Your task to perform on an android device: turn on the 12-hour format for clock Image 0: 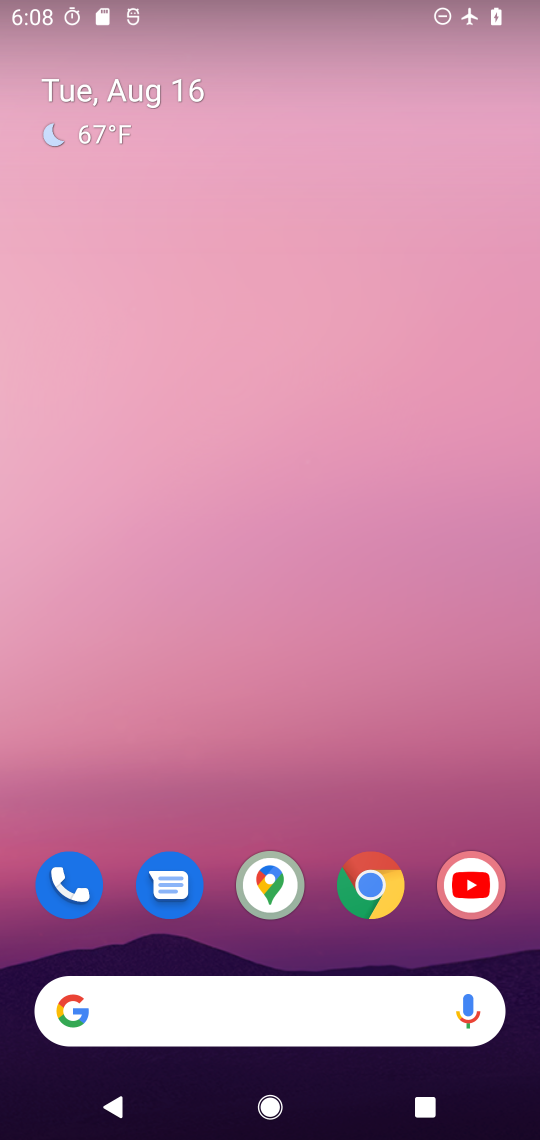
Step 0: drag from (345, 872) to (230, 311)
Your task to perform on an android device: turn on the 12-hour format for clock Image 1: 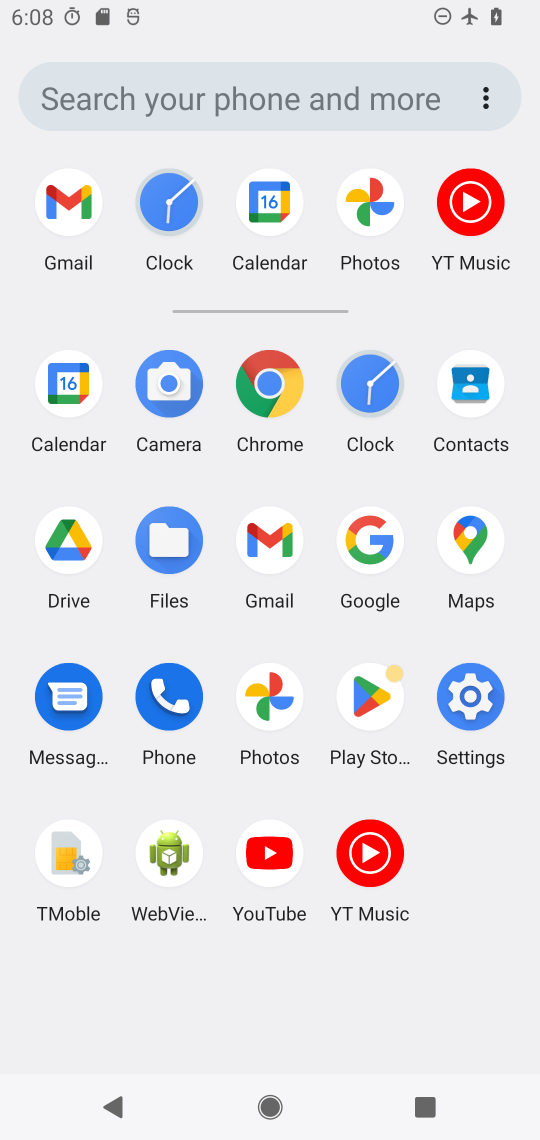
Step 1: click (360, 382)
Your task to perform on an android device: turn on the 12-hour format for clock Image 2: 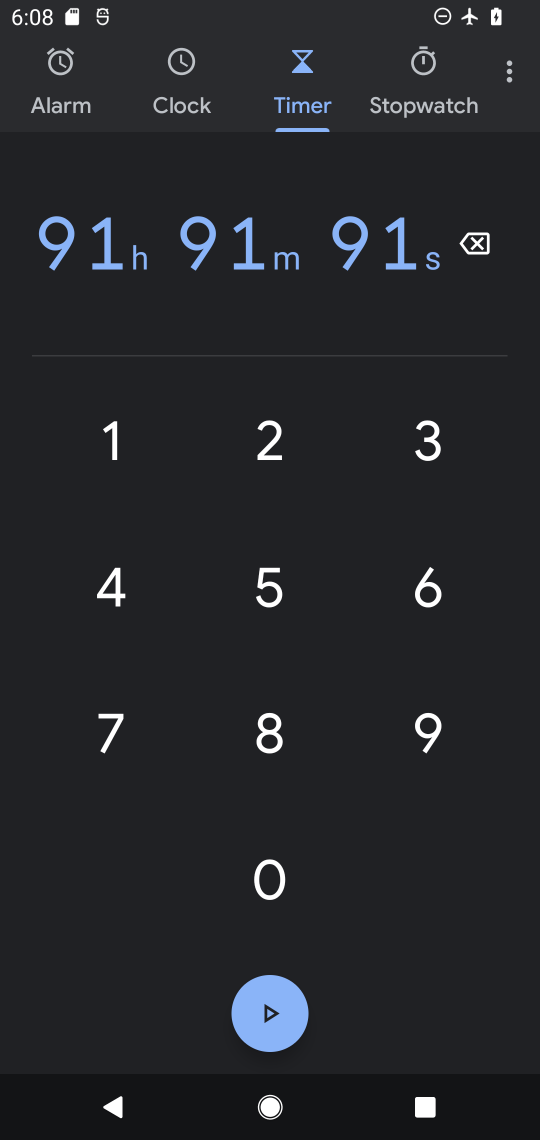
Step 2: click (530, 64)
Your task to perform on an android device: turn on the 12-hour format for clock Image 3: 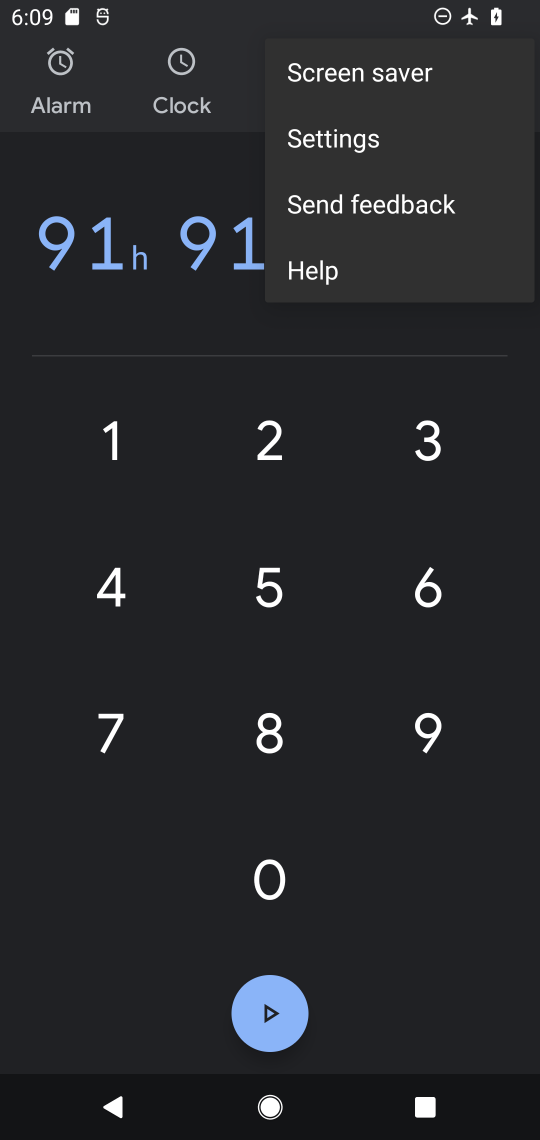
Step 3: click (364, 125)
Your task to perform on an android device: turn on the 12-hour format for clock Image 4: 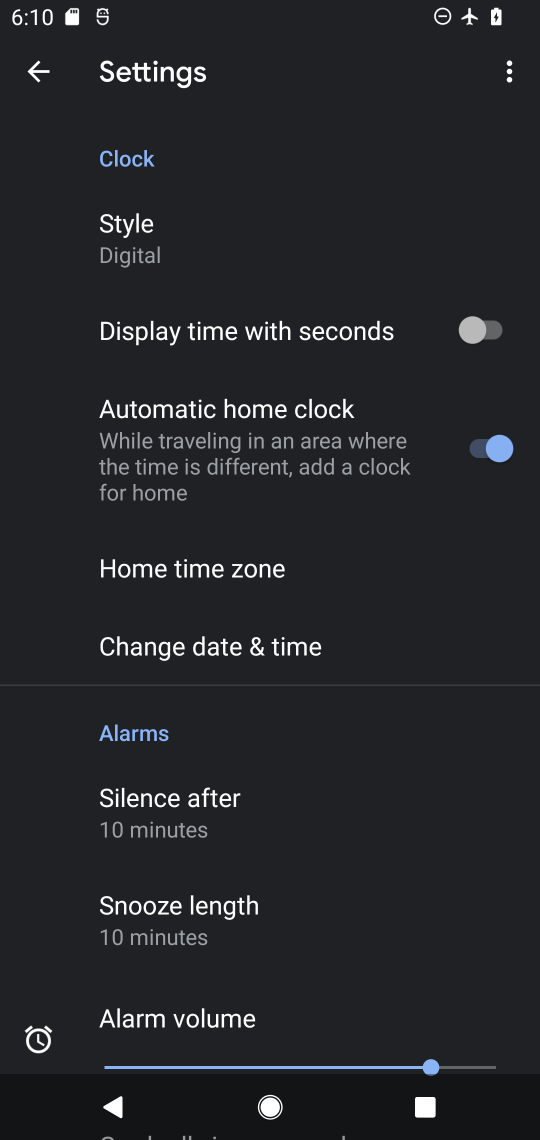
Step 4: click (233, 640)
Your task to perform on an android device: turn on the 12-hour format for clock Image 5: 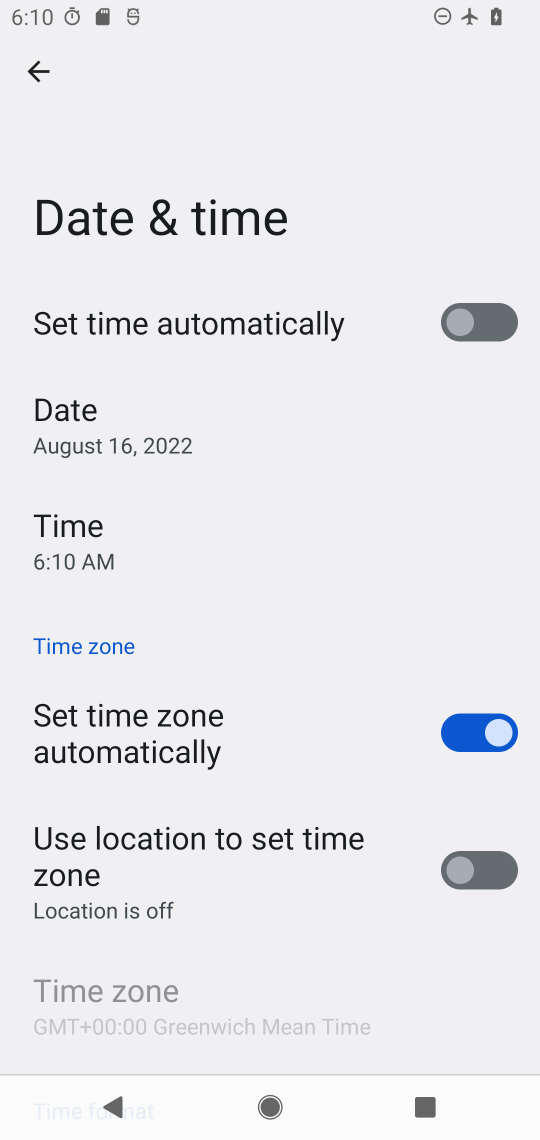
Step 5: drag from (262, 1002) to (303, 447)
Your task to perform on an android device: turn on the 12-hour format for clock Image 6: 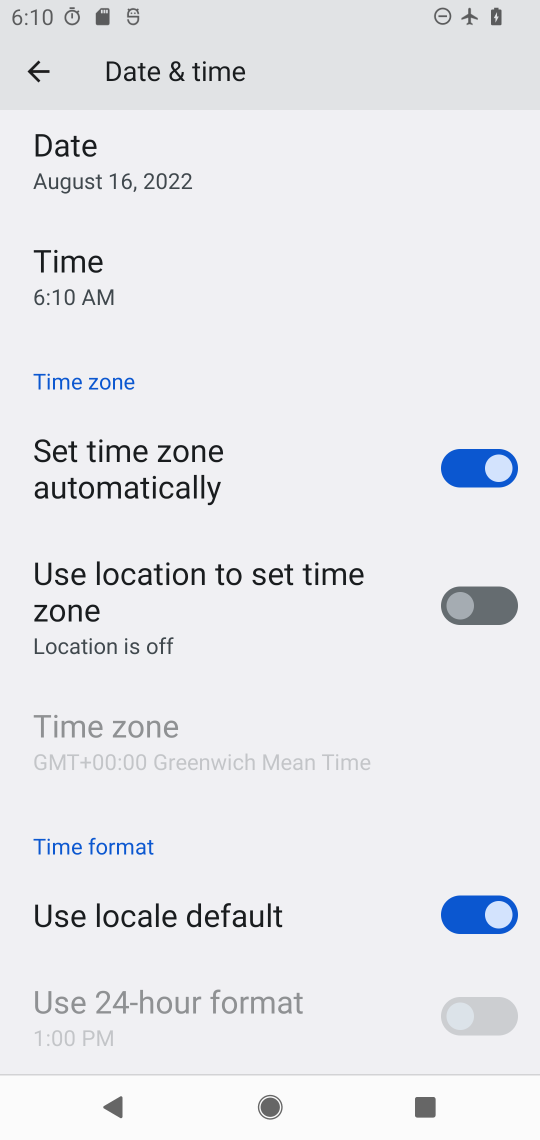
Step 6: click (467, 916)
Your task to perform on an android device: turn on the 12-hour format for clock Image 7: 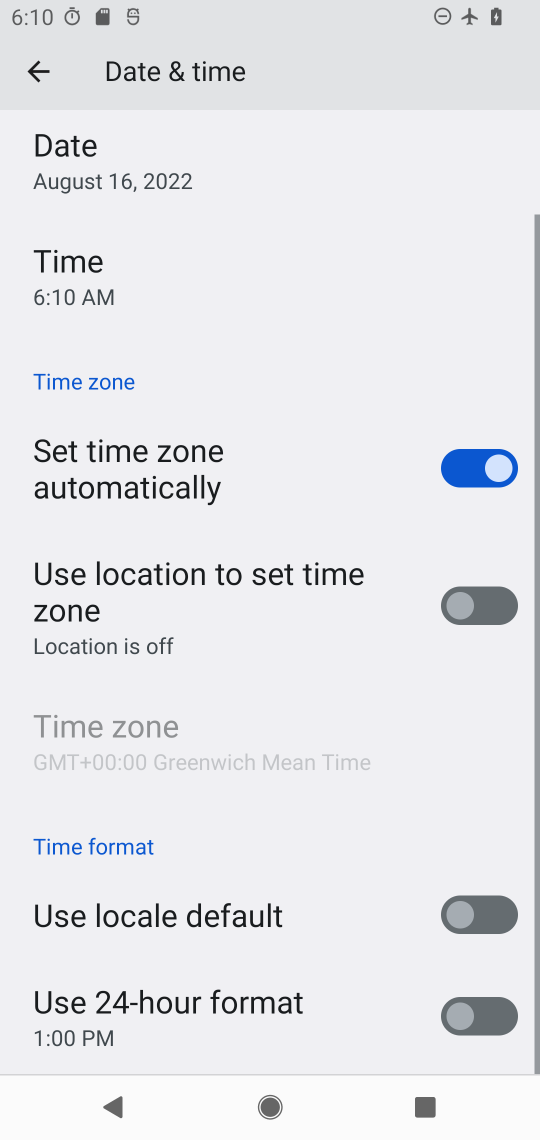
Step 7: click (480, 977)
Your task to perform on an android device: turn on the 12-hour format for clock Image 8: 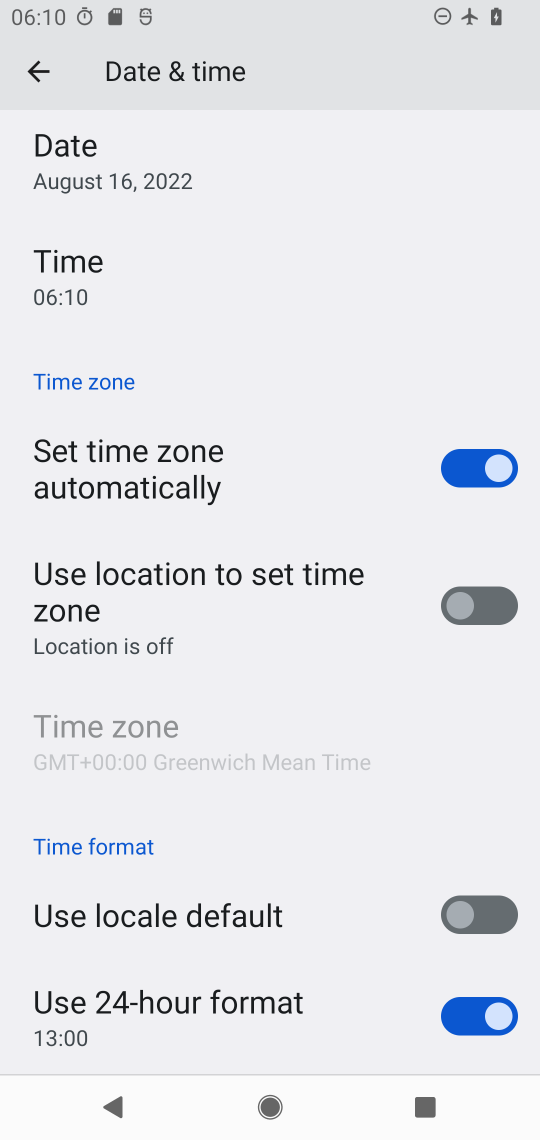
Step 8: task complete